Your task to perform on an android device: star an email in the gmail app Image 0: 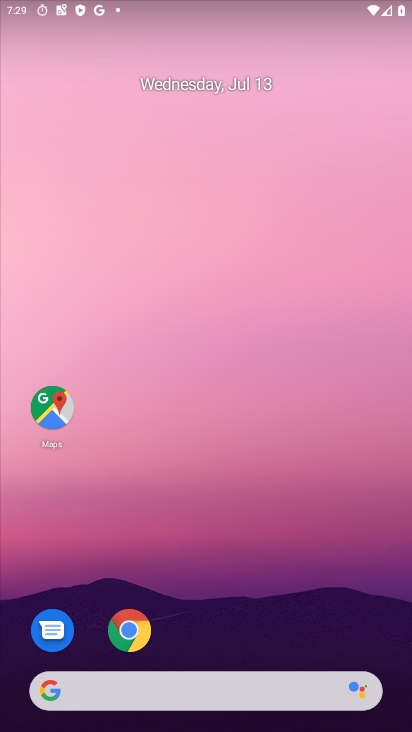
Step 0: drag from (377, 646) to (272, 3)
Your task to perform on an android device: star an email in the gmail app Image 1: 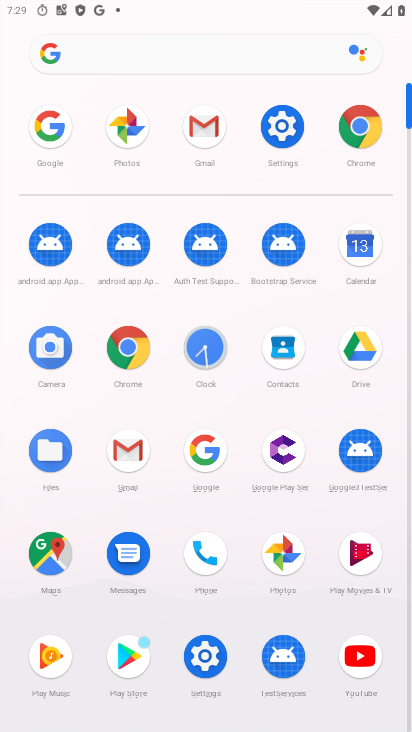
Step 1: click (211, 135)
Your task to perform on an android device: star an email in the gmail app Image 2: 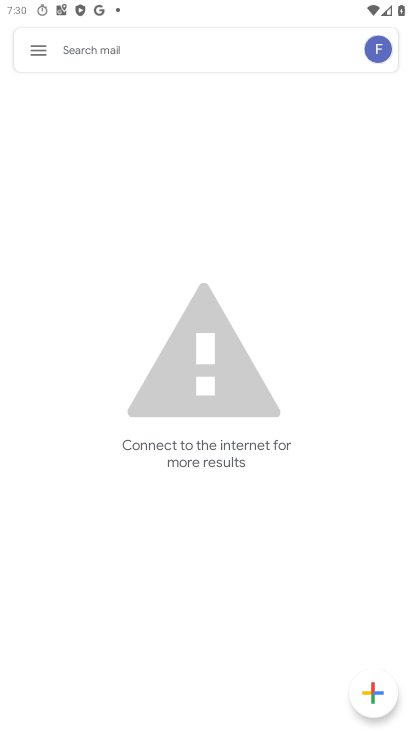
Step 2: click (35, 51)
Your task to perform on an android device: star an email in the gmail app Image 3: 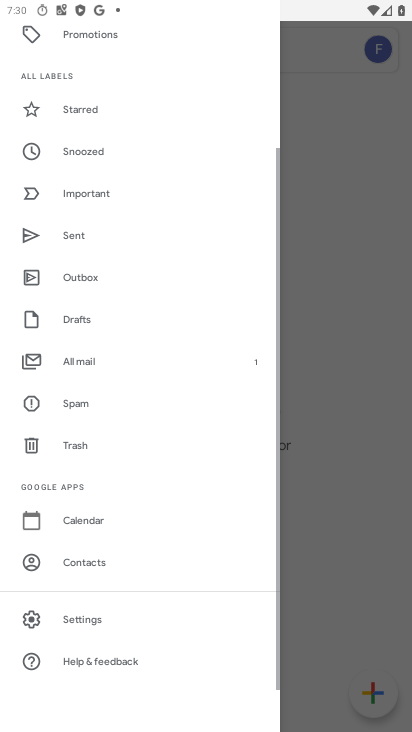
Step 3: drag from (114, 94) to (144, 730)
Your task to perform on an android device: star an email in the gmail app Image 4: 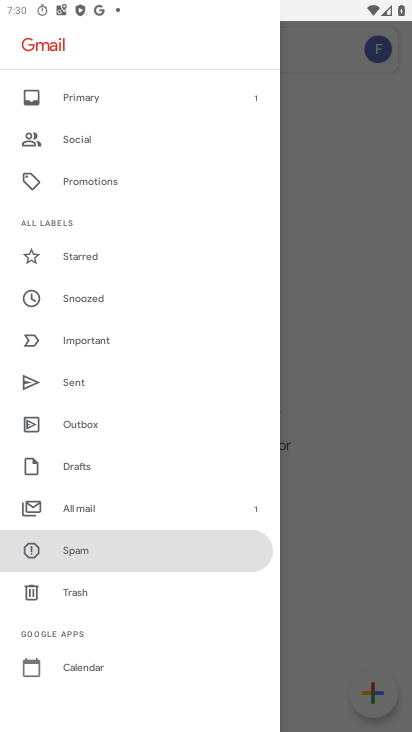
Step 4: click (115, 105)
Your task to perform on an android device: star an email in the gmail app Image 5: 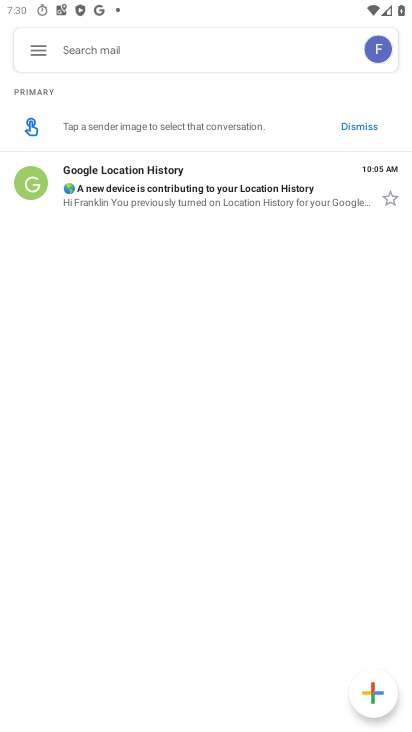
Step 5: click (392, 195)
Your task to perform on an android device: star an email in the gmail app Image 6: 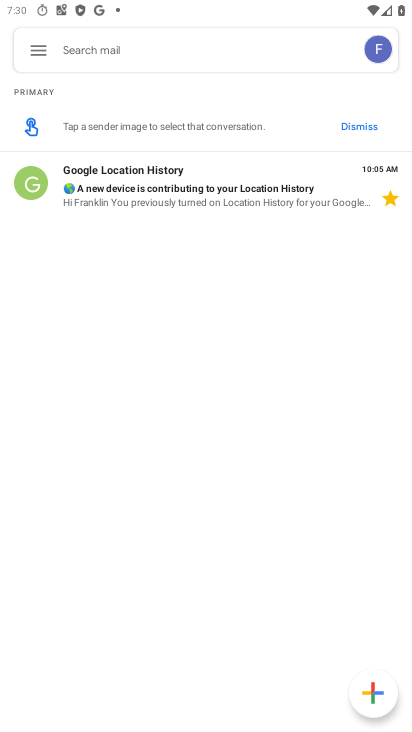
Step 6: task complete